Your task to perform on an android device: change keyboard looks Image 0: 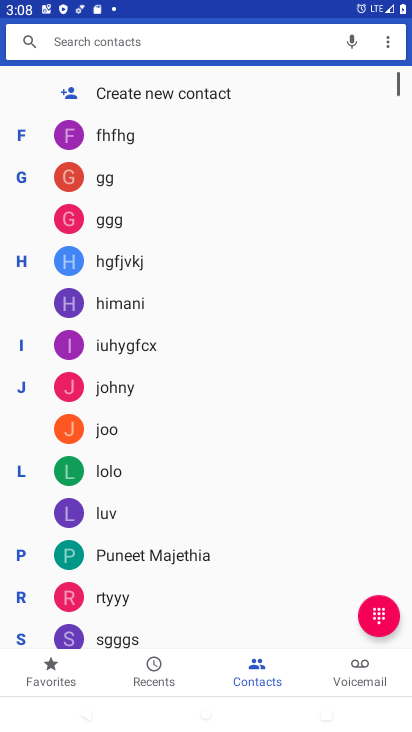
Step 0: press home button
Your task to perform on an android device: change keyboard looks Image 1: 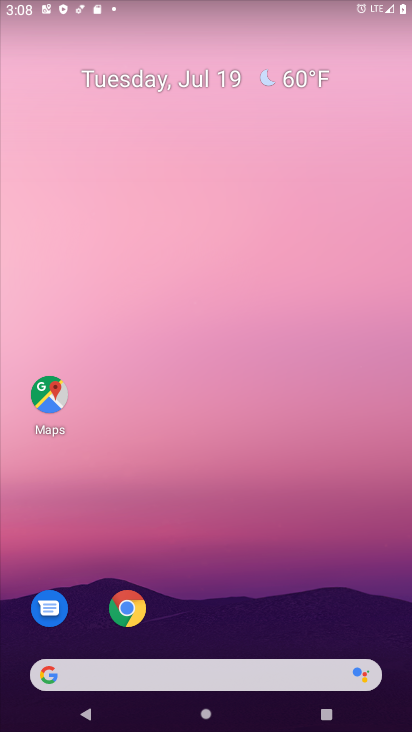
Step 1: drag from (255, 537) to (154, 105)
Your task to perform on an android device: change keyboard looks Image 2: 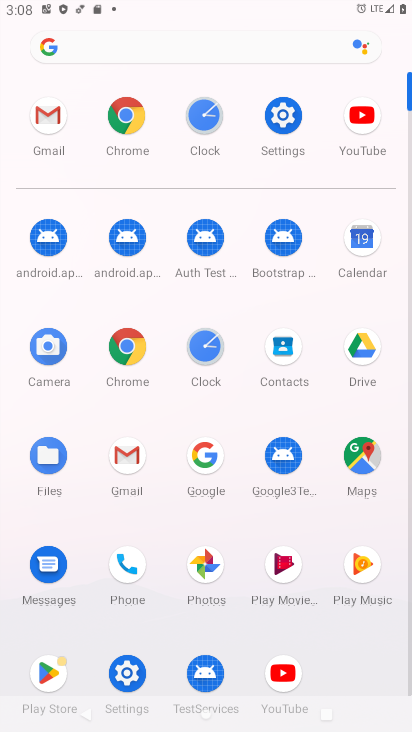
Step 2: click (280, 119)
Your task to perform on an android device: change keyboard looks Image 3: 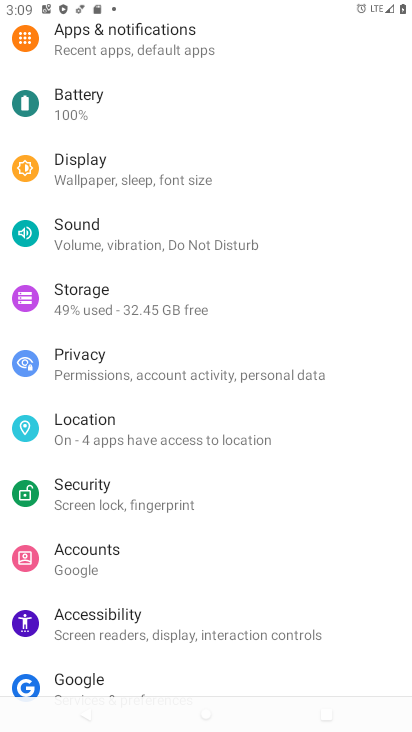
Step 3: drag from (150, 634) to (220, 190)
Your task to perform on an android device: change keyboard looks Image 4: 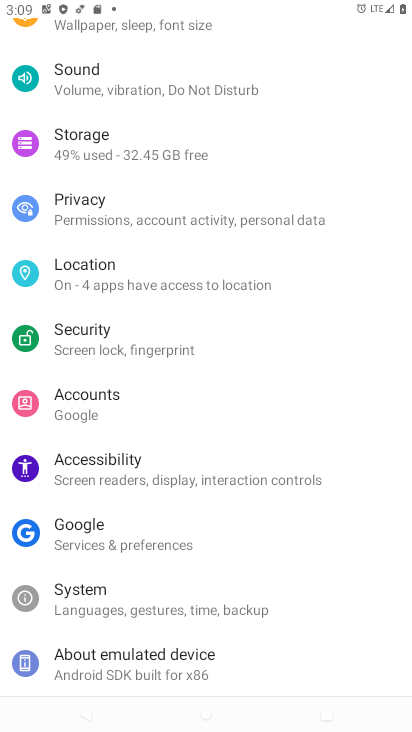
Step 4: drag from (87, 524) to (48, 115)
Your task to perform on an android device: change keyboard looks Image 5: 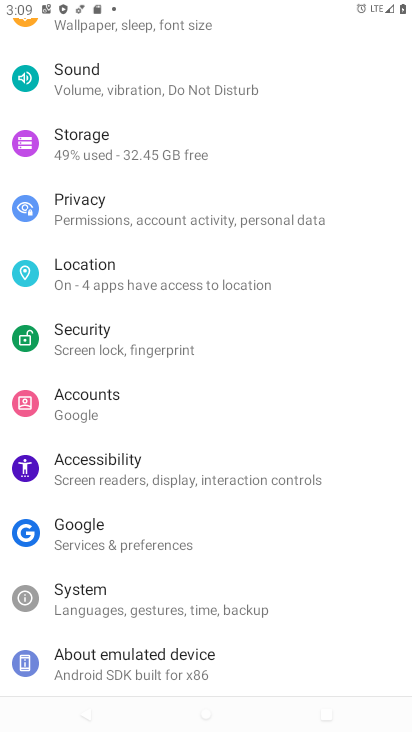
Step 5: drag from (173, 667) to (146, 186)
Your task to perform on an android device: change keyboard looks Image 6: 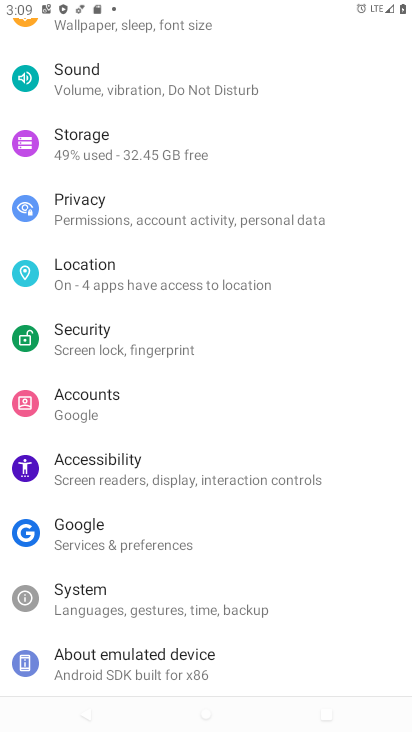
Step 6: click (163, 589)
Your task to perform on an android device: change keyboard looks Image 7: 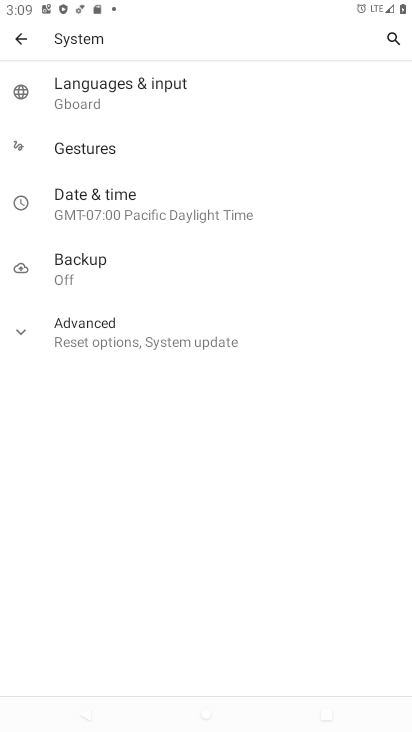
Step 7: click (83, 104)
Your task to perform on an android device: change keyboard looks Image 8: 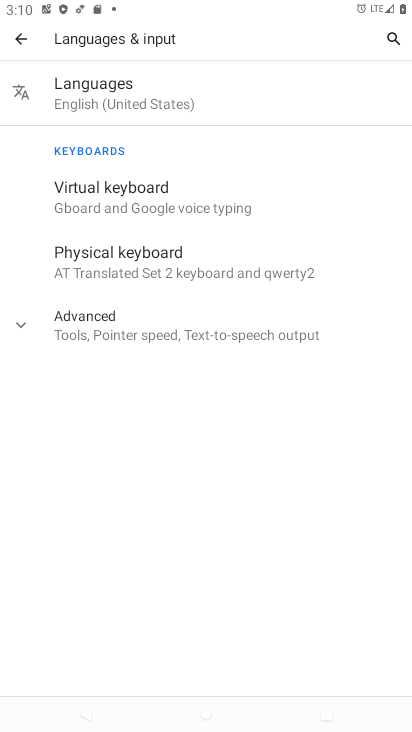
Step 8: click (119, 213)
Your task to perform on an android device: change keyboard looks Image 9: 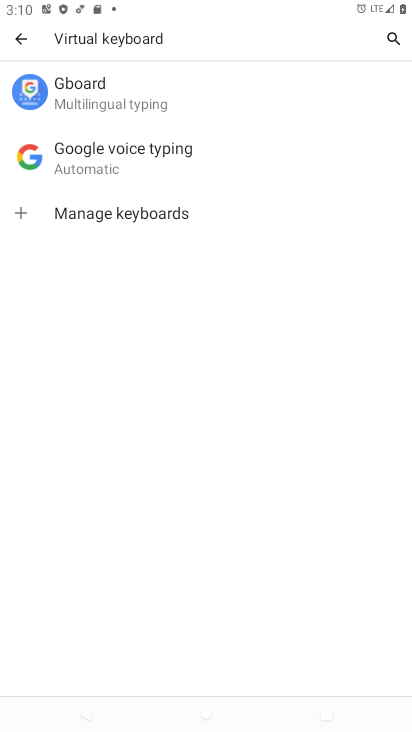
Step 9: click (69, 103)
Your task to perform on an android device: change keyboard looks Image 10: 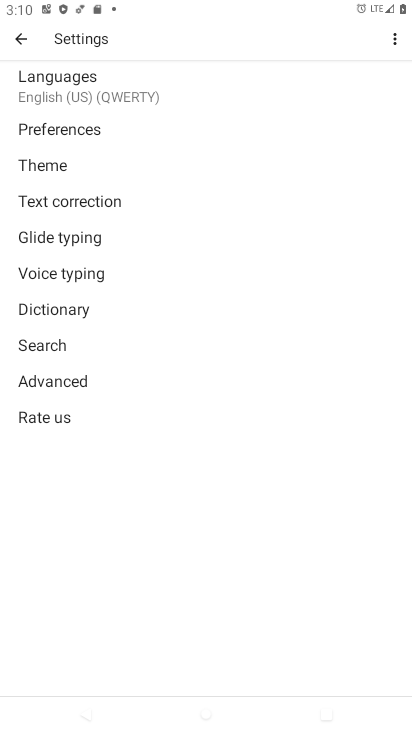
Step 10: click (45, 167)
Your task to perform on an android device: change keyboard looks Image 11: 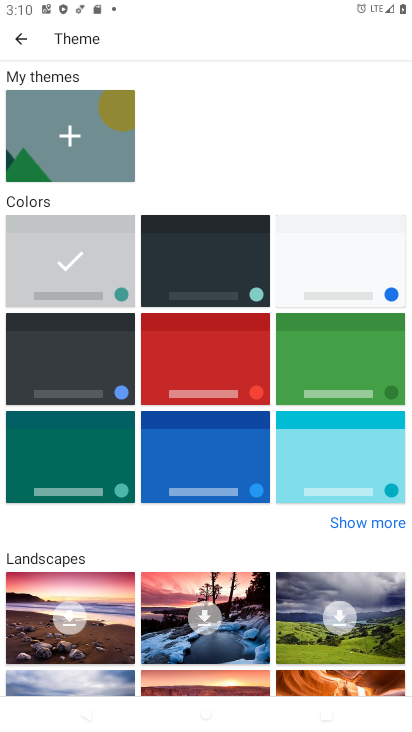
Step 11: click (178, 252)
Your task to perform on an android device: change keyboard looks Image 12: 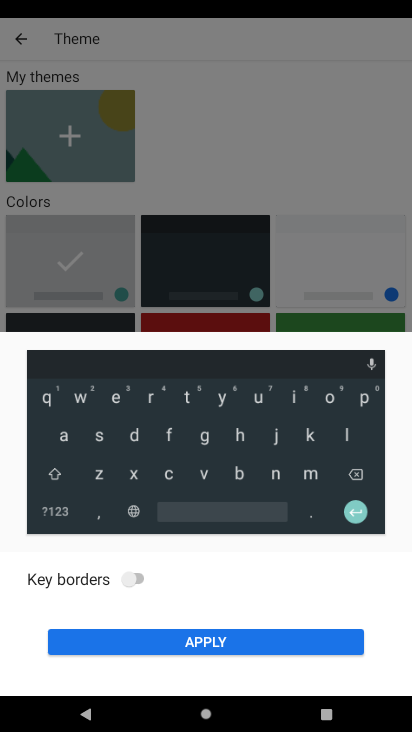
Step 12: click (213, 650)
Your task to perform on an android device: change keyboard looks Image 13: 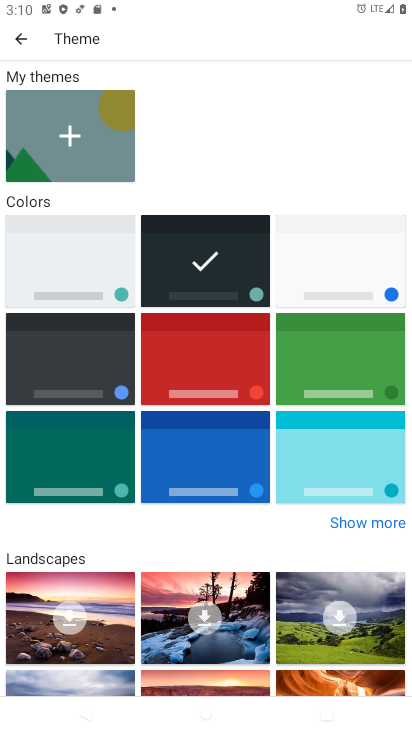
Step 13: task complete